Your task to perform on an android device: Go to Wikipedia Image 0: 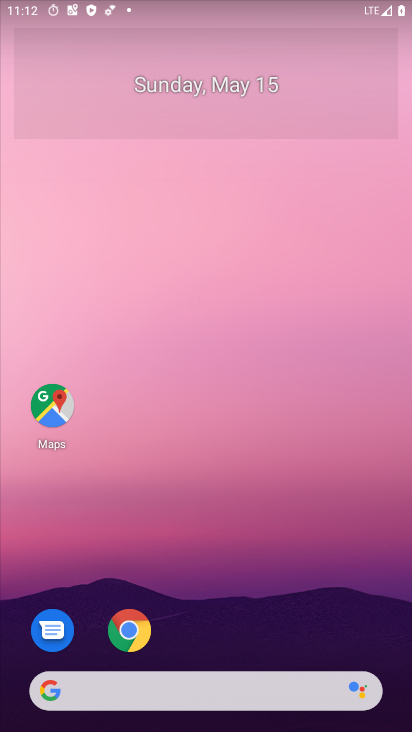
Step 0: click (132, 626)
Your task to perform on an android device: Go to Wikipedia Image 1: 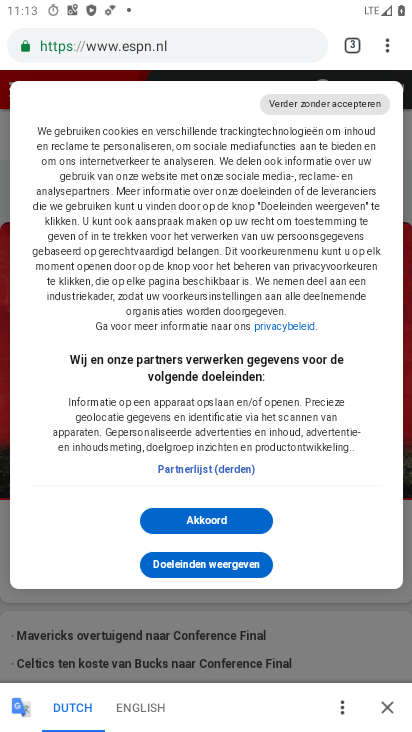
Step 1: click (349, 44)
Your task to perform on an android device: Go to Wikipedia Image 2: 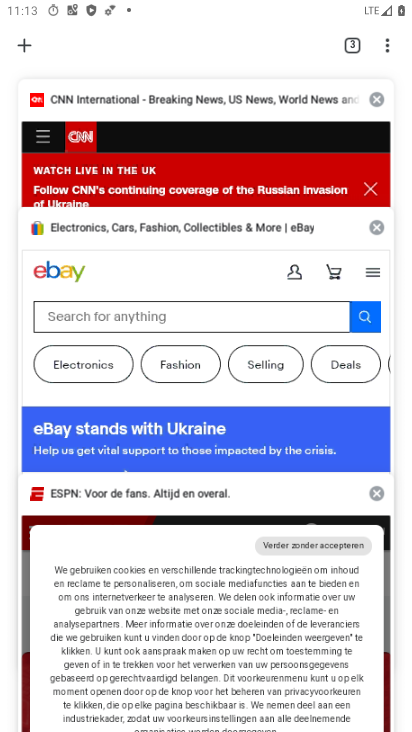
Step 2: click (27, 40)
Your task to perform on an android device: Go to Wikipedia Image 3: 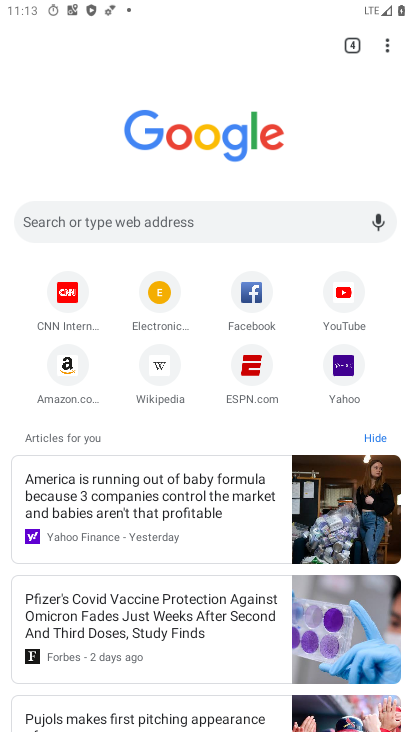
Step 3: click (151, 372)
Your task to perform on an android device: Go to Wikipedia Image 4: 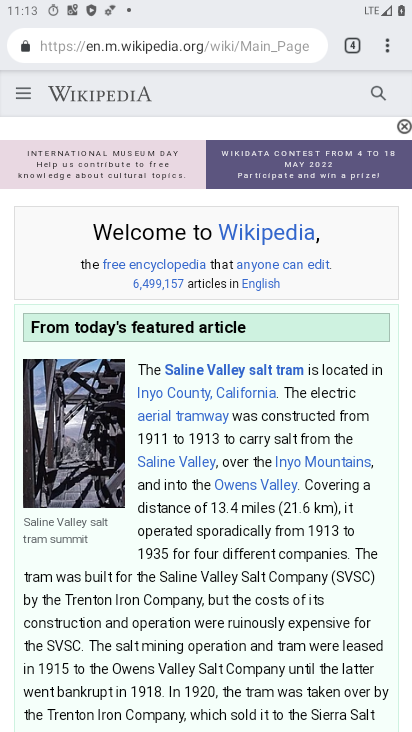
Step 4: task complete